Your task to perform on an android device: turn off location history Image 0: 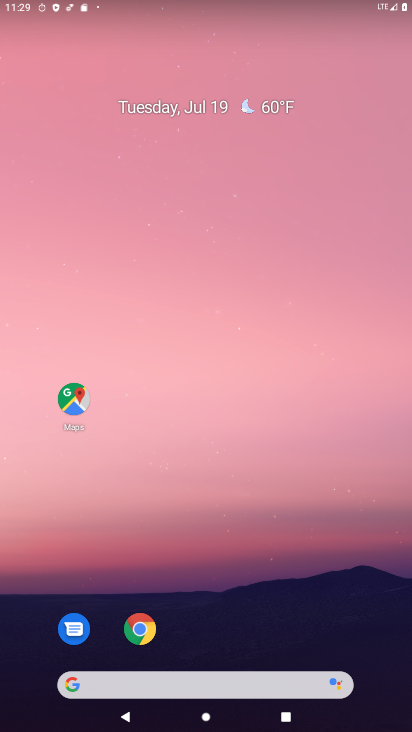
Step 0: drag from (327, 602) to (282, 2)
Your task to perform on an android device: turn off location history Image 1: 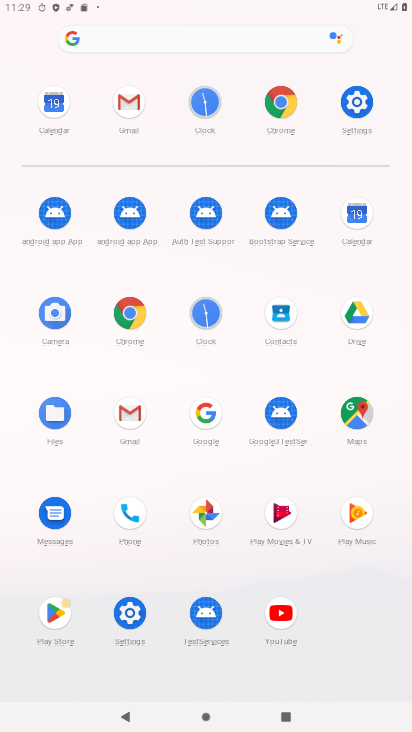
Step 1: click (365, 98)
Your task to perform on an android device: turn off location history Image 2: 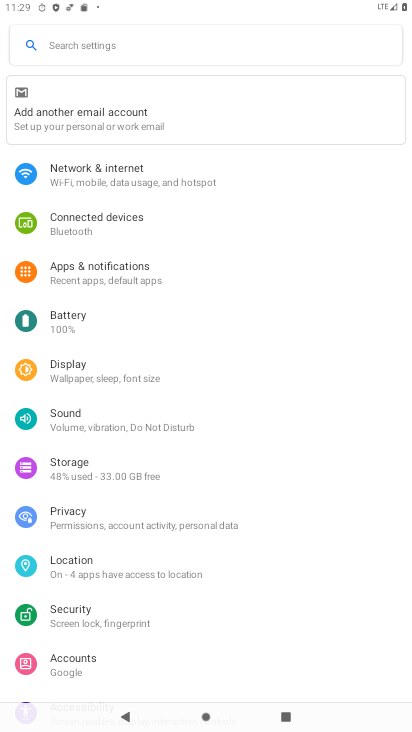
Step 2: click (103, 561)
Your task to perform on an android device: turn off location history Image 3: 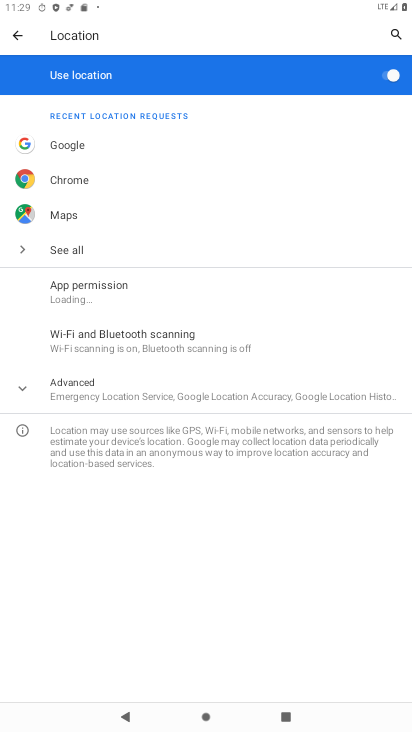
Step 3: click (172, 401)
Your task to perform on an android device: turn off location history Image 4: 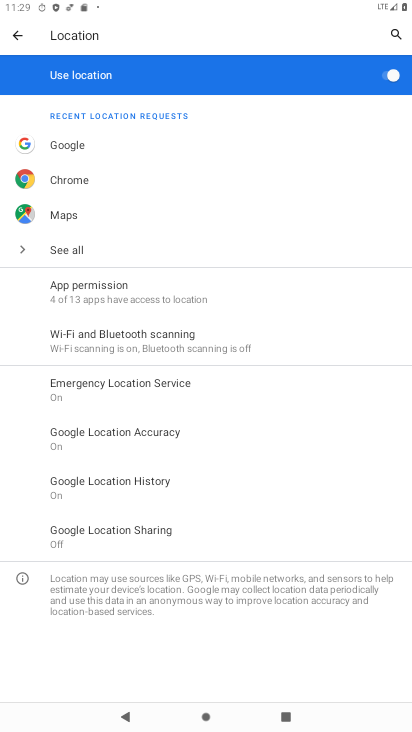
Step 4: click (141, 486)
Your task to perform on an android device: turn off location history Image 5: 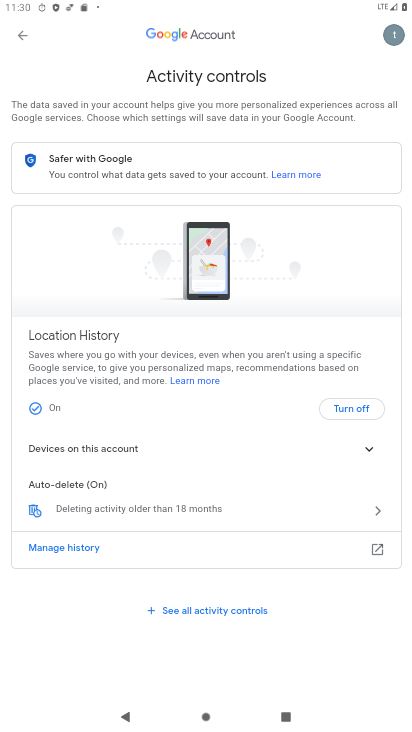
Step 5: click (353, 400)
Your task to perform on an android device: turn off location history Image 6: 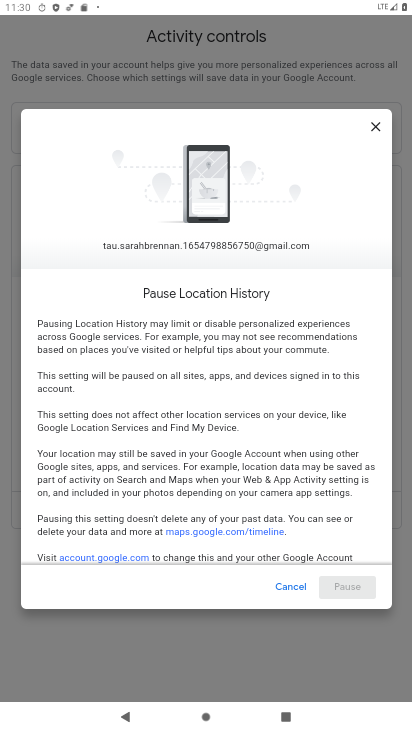
Step 6: drag from (316, 508) to (323, 112)
Your task to perform on an android device: turn off location history Image 7: 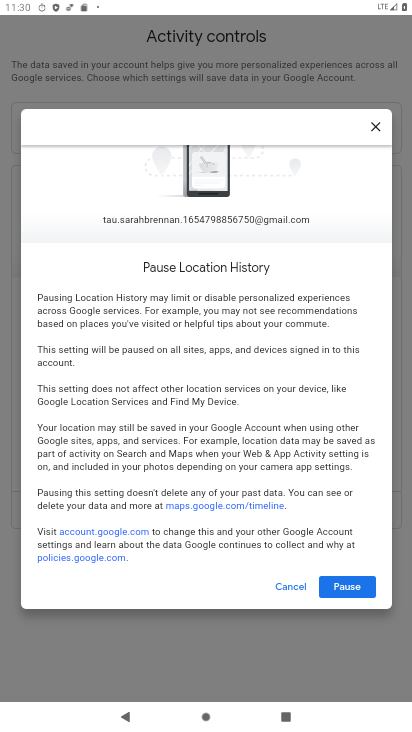
Step 7: click (361, 583)
Your task to perform on an android device: turn off location history Image 8: 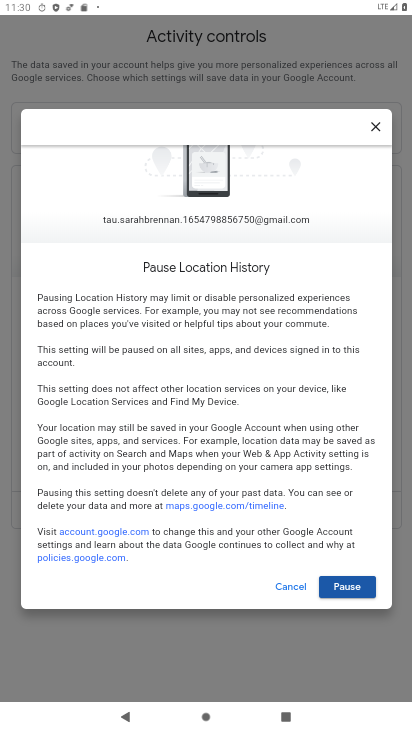
Step 8: click (360, 591)
Your task to perform on an android device: turn off location history Image 9: 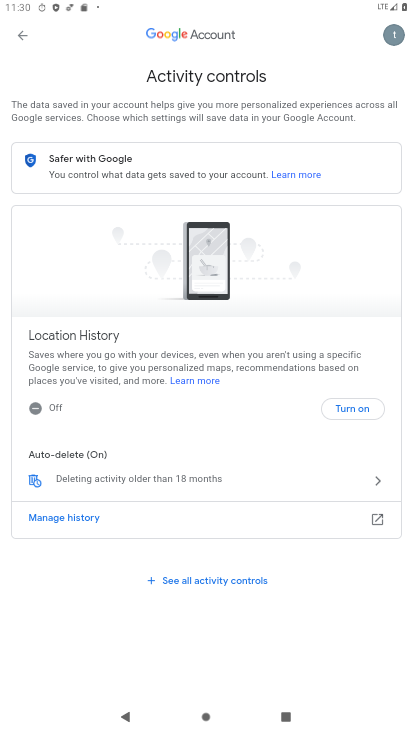
Step 9: task complete